Your task to perform on an android device: turn notification dots on Image 0: 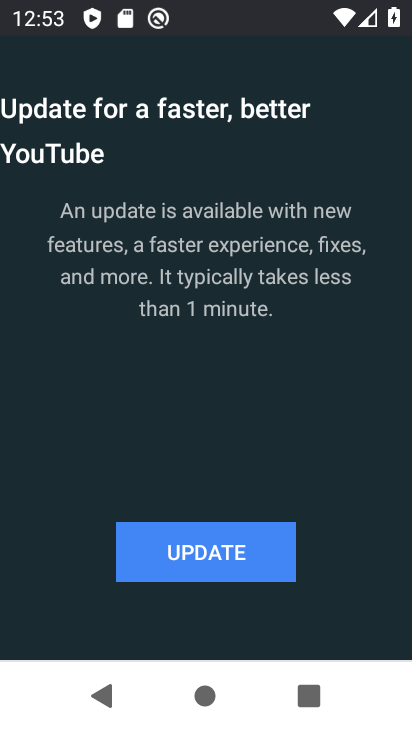
Step 0: press home button
Your task to perform on an android device: turn notification dots on Image 1: 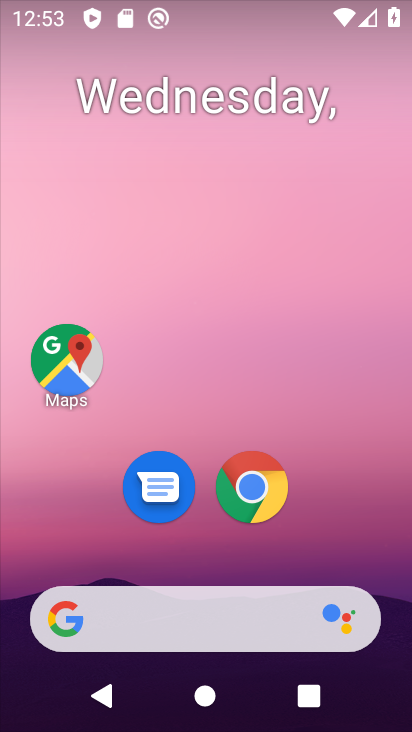
Step 1: drag from (201, 545) to (278, 105)
Your task to perform on an android device: turn notification dots on Image 2: 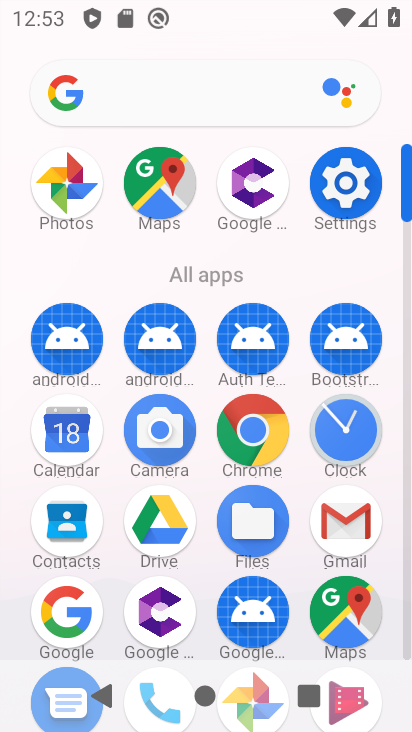
Step 2: click (341, 174)
Your task to perform on an android device: turn notification dots on Image 3: 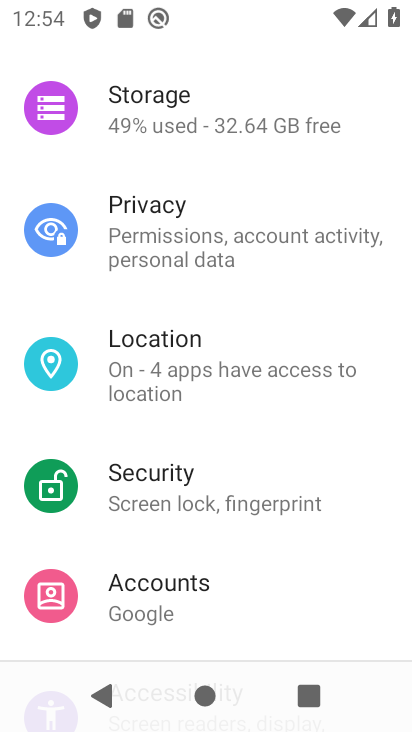
Step 3: drag from (267, 259) to (284, 582)
Your task to perform on an android device: turn notification dots on Image 4: 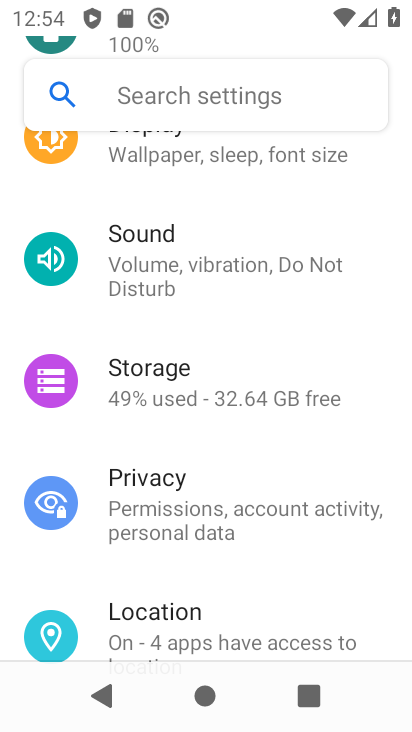
Step 4: drag from (254, 265) to (240, 685)
Your task to perform on an android device: turn notification dots on Image 5: 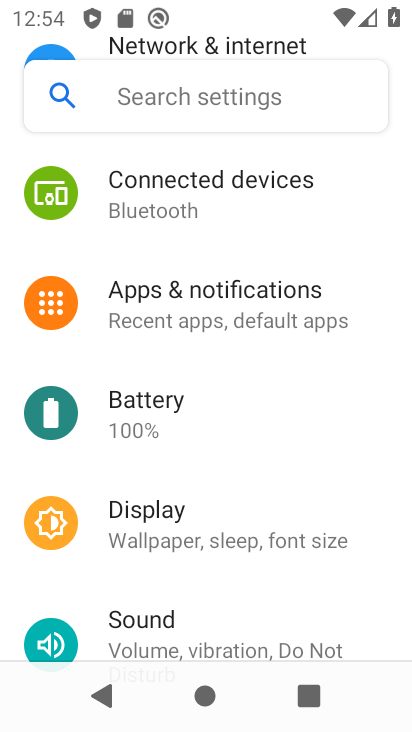
Step 5: click (207, 315)
Your task to perform on an android device: turn notification dots on Image 6: 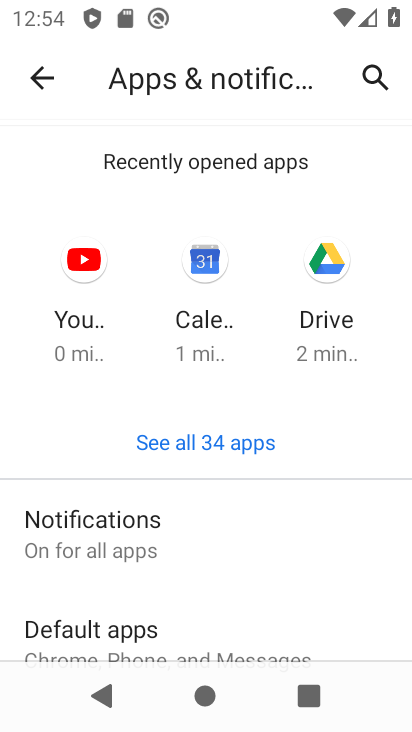
Step 6: click (109, 538)
Your task to perform on an android device: turn notification dots on Image 7: 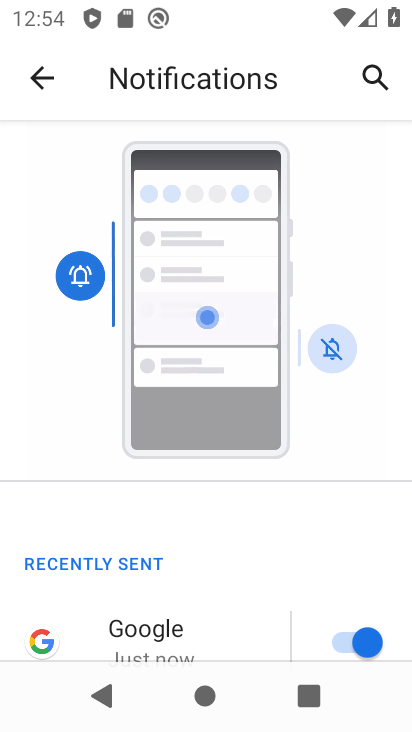
Step 7: drag from (171, 585) to (247, 256)
Your task to perform on an android device: turn notification dots on Image 8: 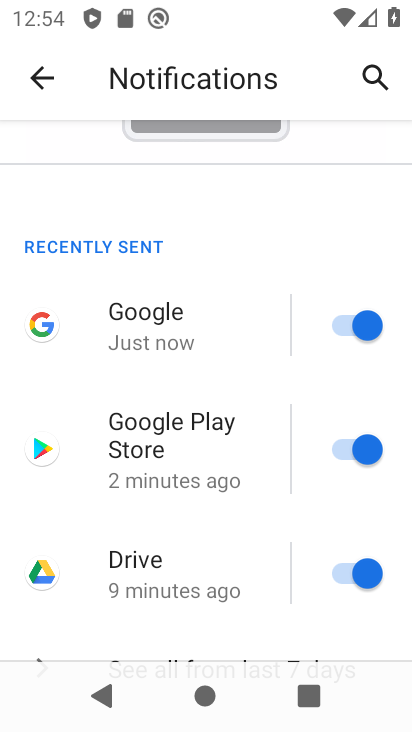
Step 8: drag from (176, 538) to (234, 281)
Your task to perform on an android device: turn notification dots on Image 9: 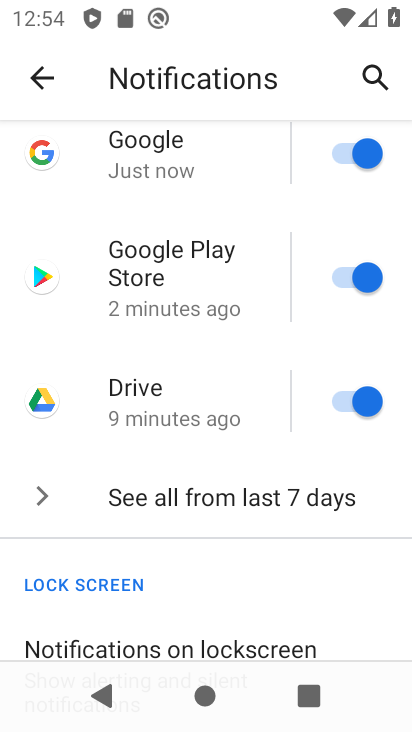
Step 9: drag from (181, 514) to (226, 160)
Your task to perform on an android device: turn notification dots on Image 10: 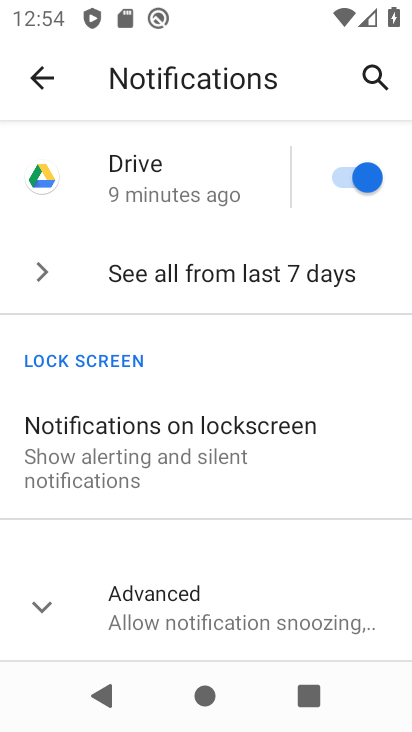
Step 10: click (167, 593)
Your task to perform on an android device: turn notification dots on Image 11: 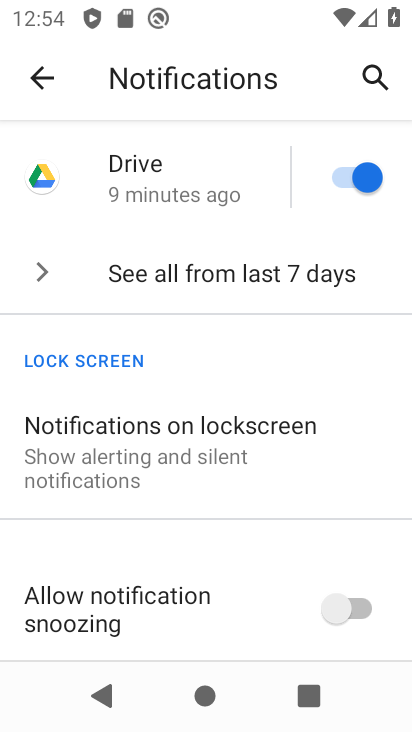
Step 11: task complete